Your task to perform on an android device: change the clock display to digital Image 0: 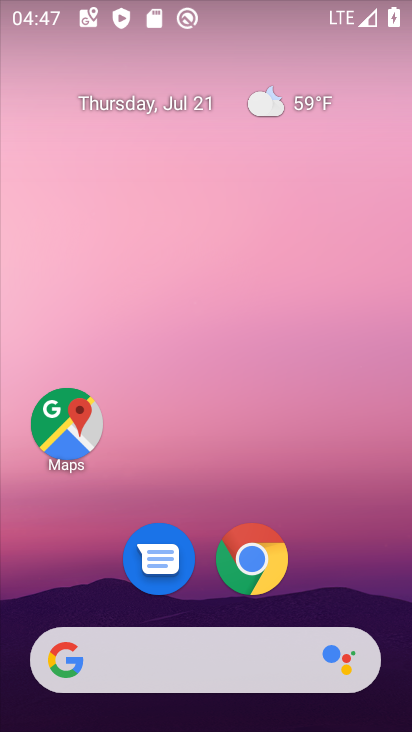
Step 0: drag from (105, 592) to (208, 64)
Your task to perform on an android device: change the clock display to digital Image 1: 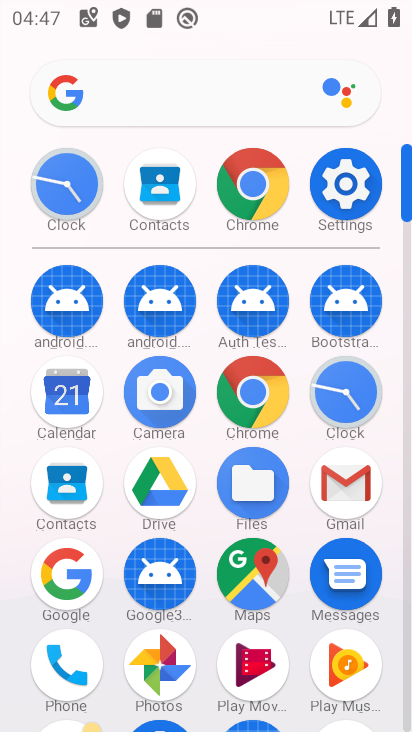
Step 1: click (342, 401)
Your task to perform on an android device: change the clock display to digital Image 2: 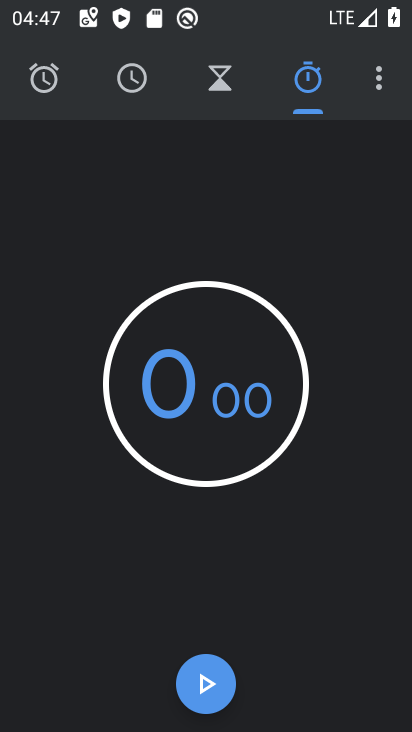
Step 2: click (373, 72)
Your task to perform on an android device: change the clock display to digital Image 3: 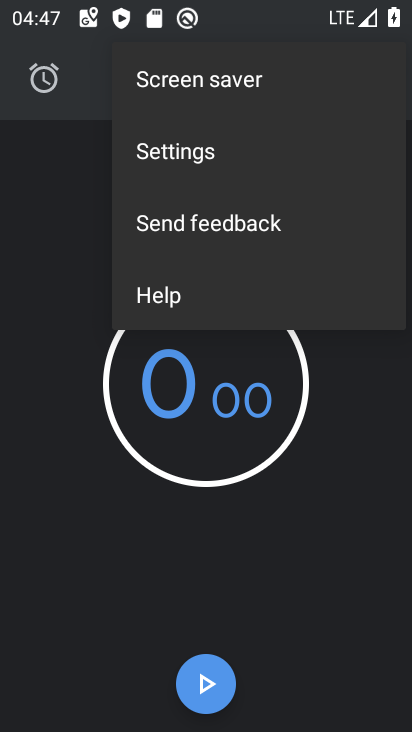
Step 3: click (188, 160)
Your task to perform on an android device: change the clock display to digital Image 4: 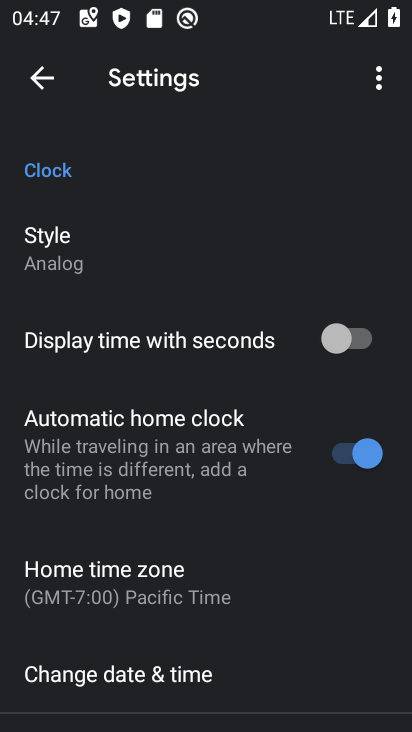
Step 4: click (55, 254)
Your task to perform on an android device: change the clock display to digital Image 5: 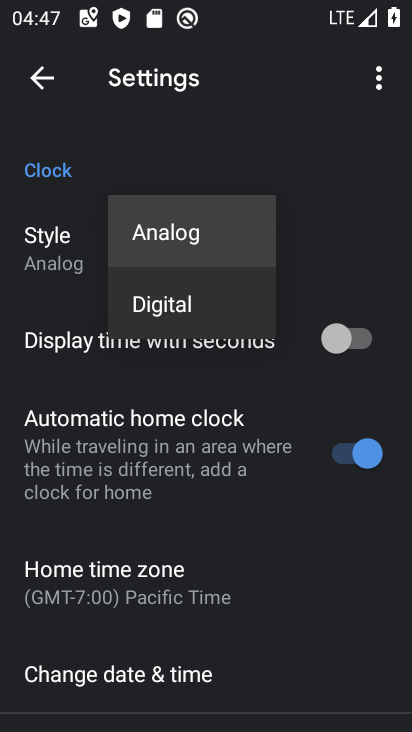
Step 5: click (208, 306)
Your task to perform on an android device: change the clock display to digital Image 6: 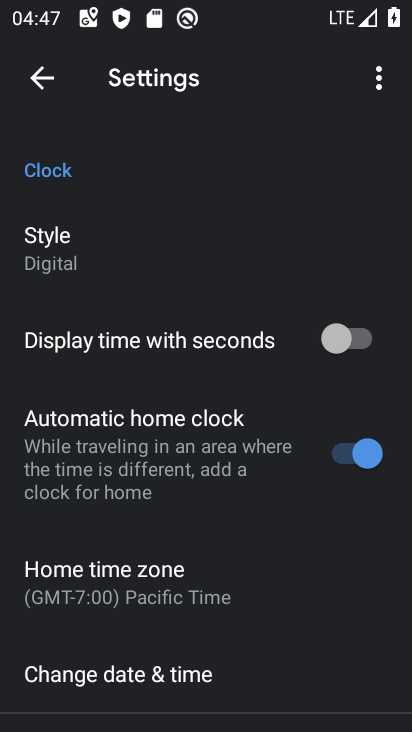
Step 6: task complete